Your task to perform on an android device: Open network settings Image 0: 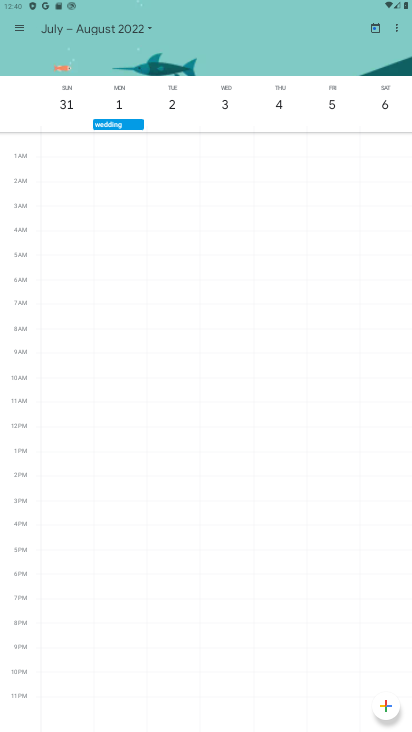
Step 0: press home button
Your task to perform on an android device: Open network settings Image 1: 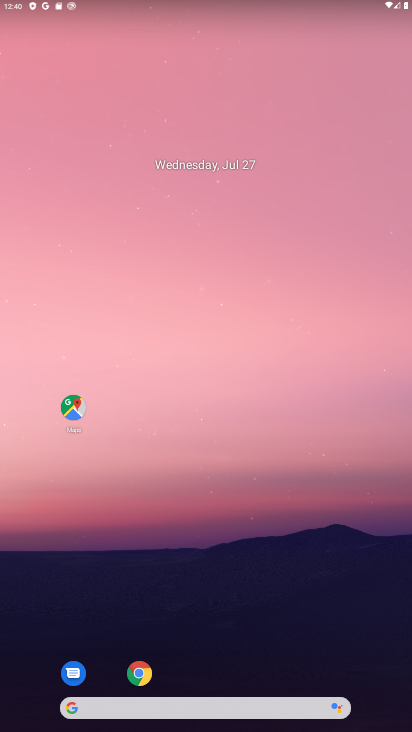
Step 1: drag from (235, 677) to (247, 6)
Your task to perform on an android device: Open network settings Image 2: 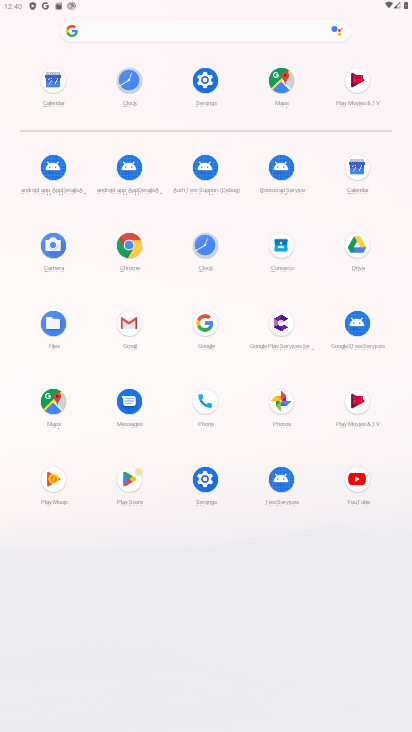
Step 2: click (206, 81)
Your task to perform on an android device: Open network settings Image 3: 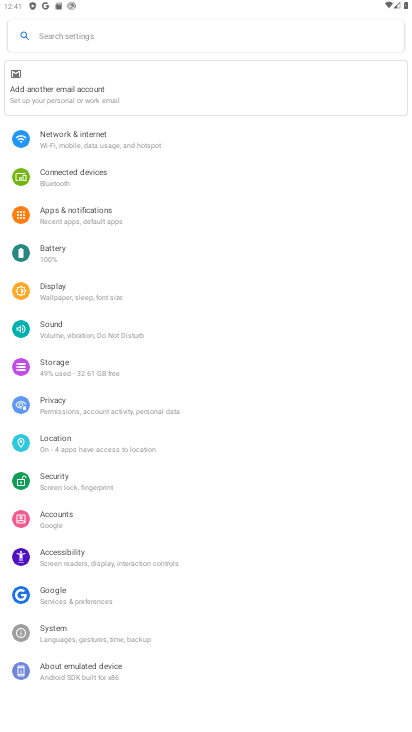
Step 3: click (58, 141)
Your task to perform on an android device: Open network settings Image 4: 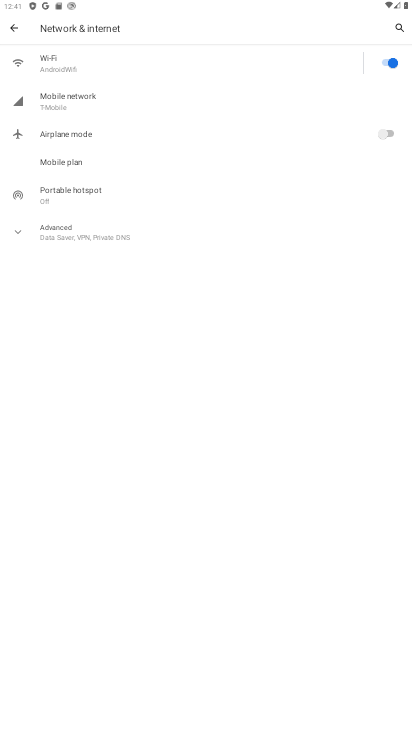
Step 4: click (53, 99)
Your task to perform on an android device: Open network settings Image 5: 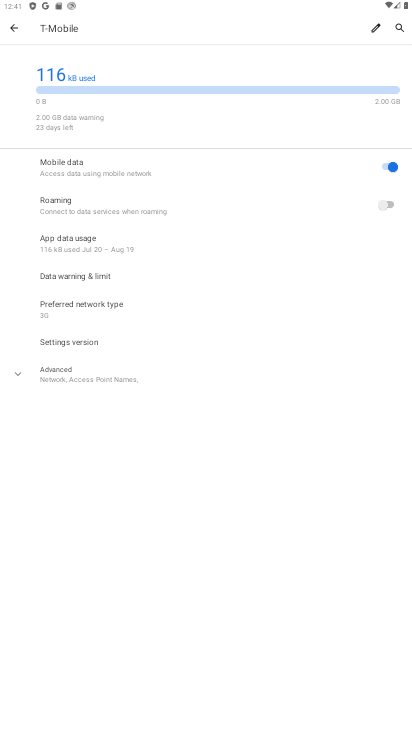
Step 5: task complete